Your task to perform on an android device: Go to settings Image 0: 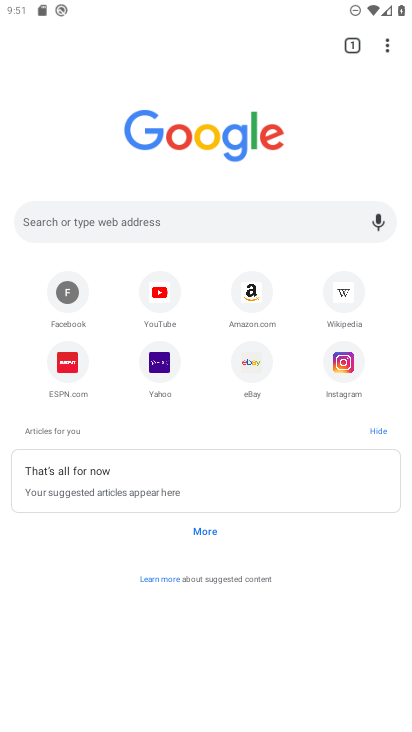
Step 0: press home button
Your task to perform on an android device: Go to settings Image 1: 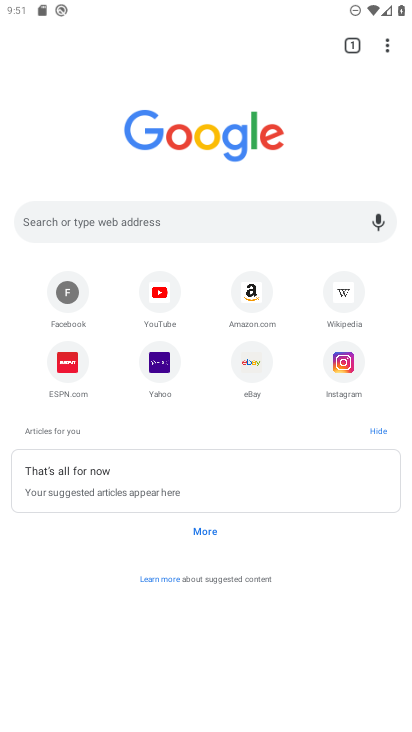
Step 1: drag from (284, 599) to (312, 0)
Your task to perform on an android device: Go to settings Image 2: 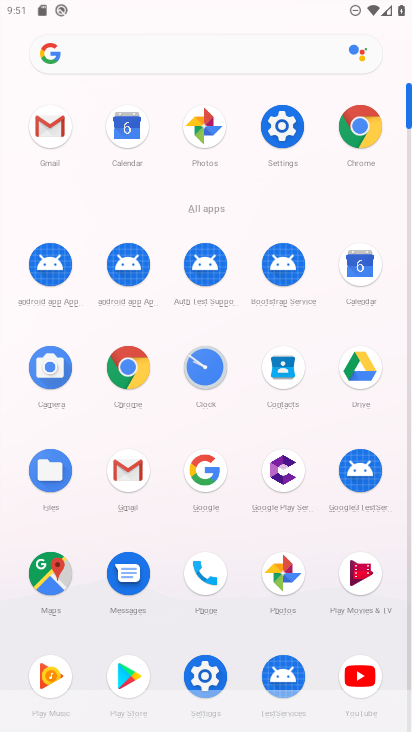
Step 2: click (284, 122)
Your task to perform on an android device: Go to settings Image 3: 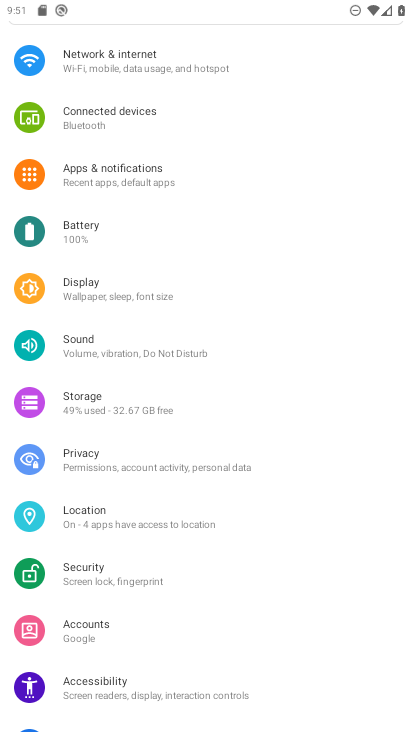
Step 3: task complete